Your task to perform on an android device: Open calendar and show me the first week of next month Image 0: 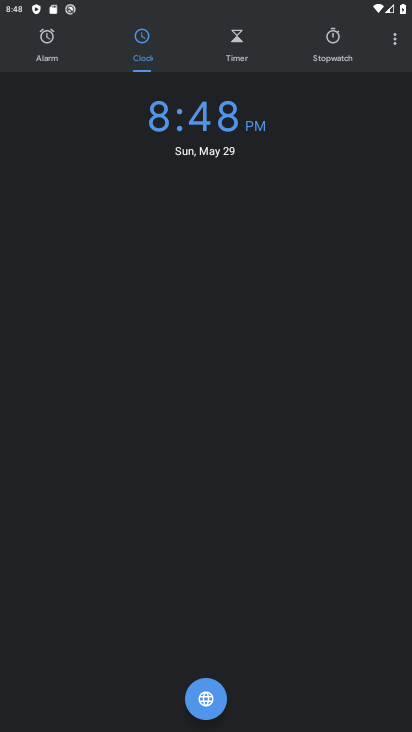
Step 0: press back button
Your task to perform on an android device: Open calendar and show me the first week of next month Image 1: 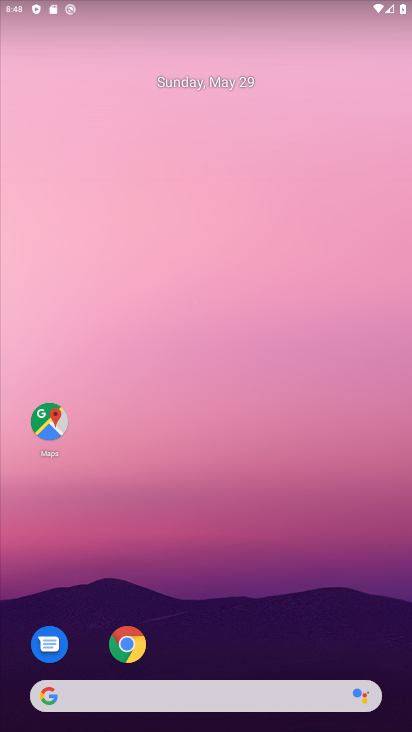
Step 1: drag from (261, 578) to (141, 20)
Your task to perform on an android device: Open calendar and show me the first week of next month Image 2: 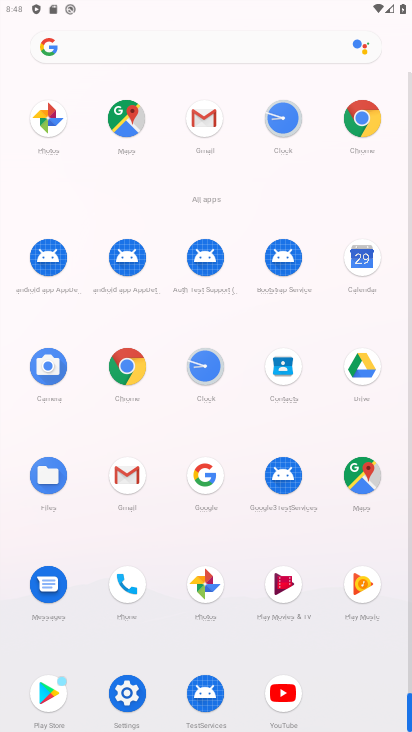
Step 2: drag from (16, 572) to (28, 225)
Your task to perform on an android device: Open calendar and show me the first week of next month Image 3: 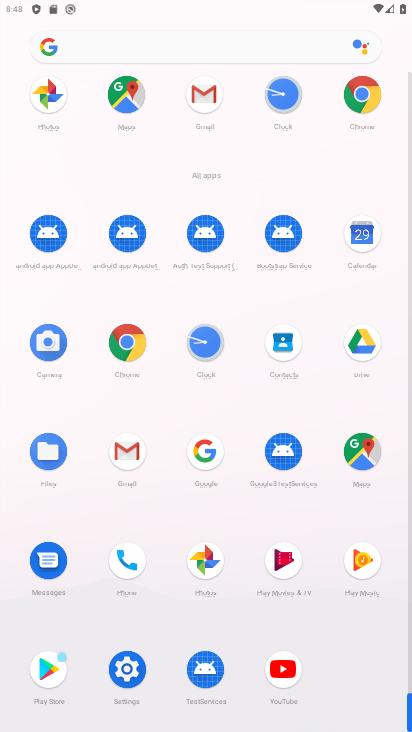
Step 3: click (360, 232)
Your task to perform on an android device: Open calendar and show me the first week of next month Image 4: 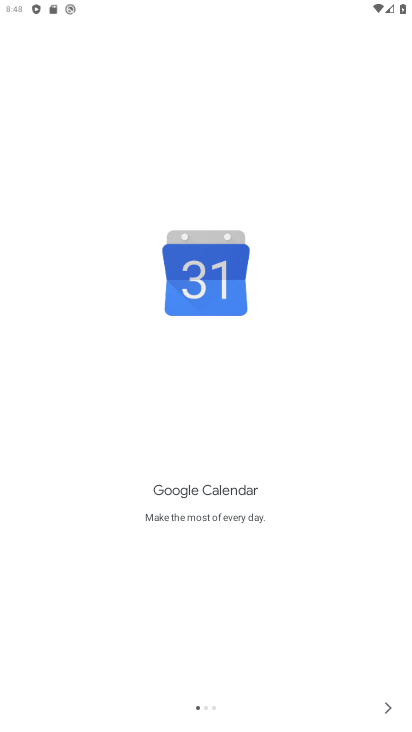
Step 4: click (379, 709)
Your task to perform on an android device: Open calendar and show me the first week of next month Image 5: 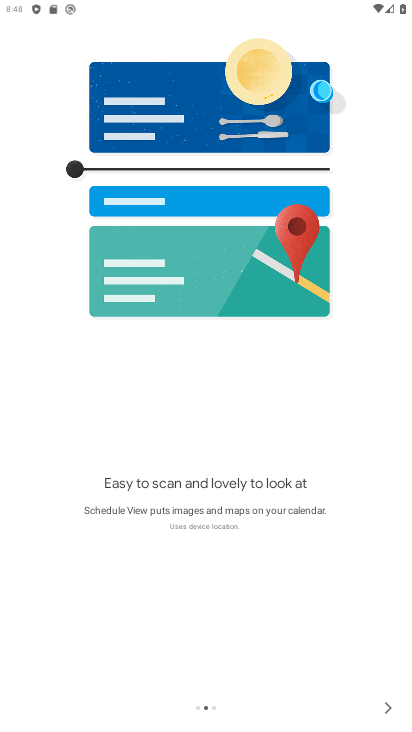
Step 5: click (379, 709)
Your task to perform on an android device: Open calendar and show me the first week of next month Image 6: 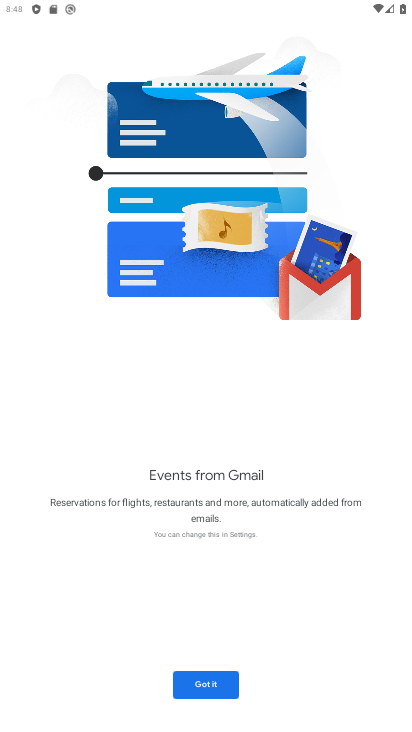
Step 6: click (219, 683)
Your task to perform on an android device: Open calendar and show me the first week of next month Image 7: 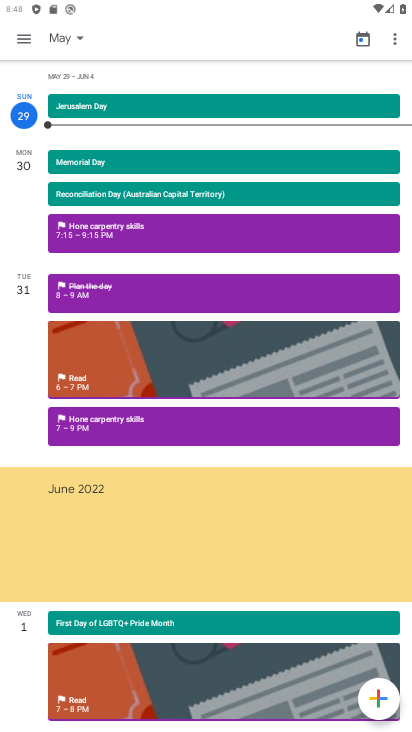
Step 7: click (71, 39)
Your task to perform on an android device: Open calendar and show me the first week of next month Image 8: 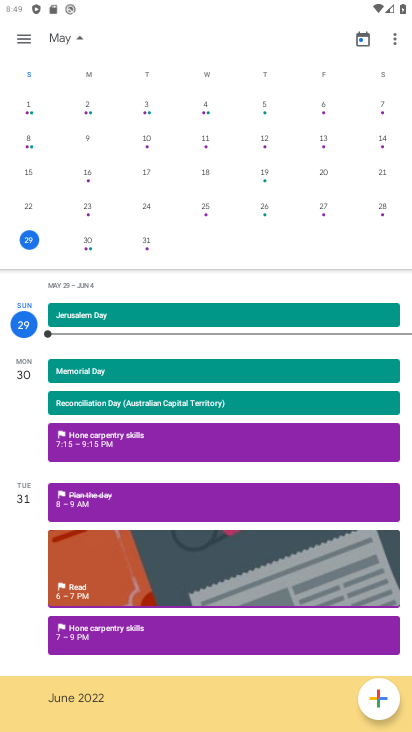
Step 8: click (83, 99)
Your task to perform on an android device: Open calendar and show me the first week of next month Image 9: 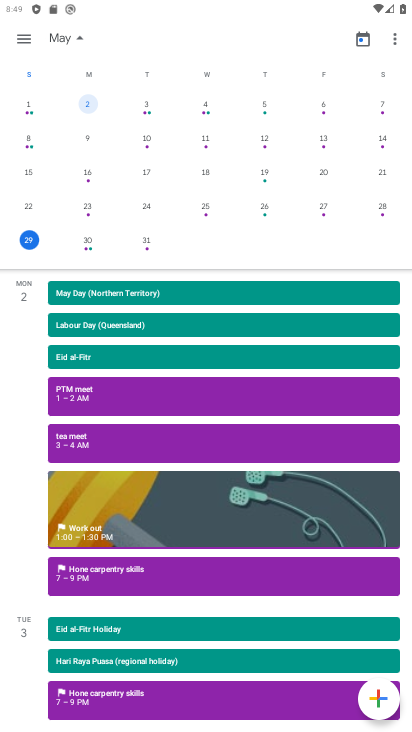
Step 9: click (25, 41)
Your task to perform on an android device: Open calendar and show me the first week of next month Image 10: 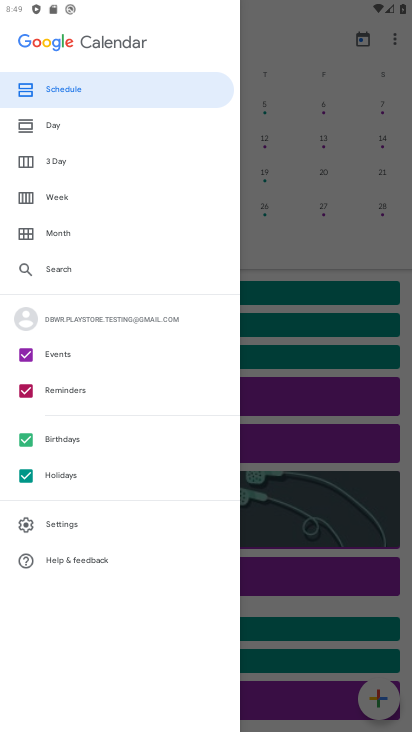
Step 10: click (70, 197)
Your task to perform on an android device: Open calendar and show me the first week of next month Image 11: 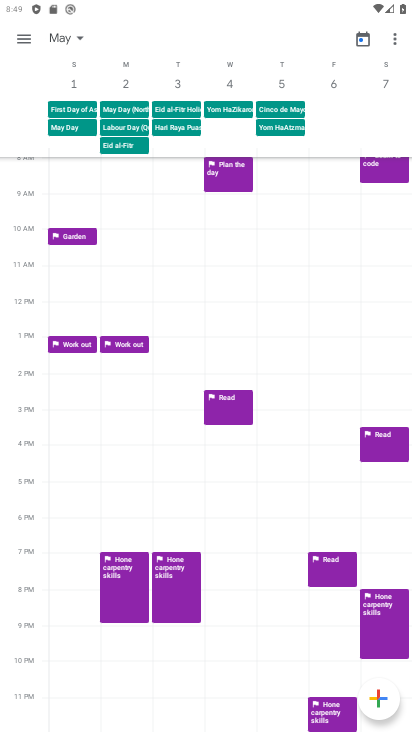
Step 11: task complete